Your task to perform on an android device: make emails show in primary in the gmail app Image 0: 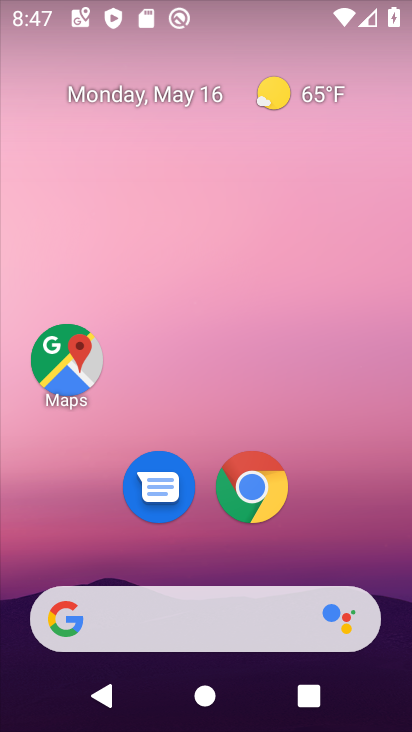
Step 0: drag from (363, 564) to (359, 167)
Your task to perform on an android device: make emails show in primary in the gmail app Image 1: 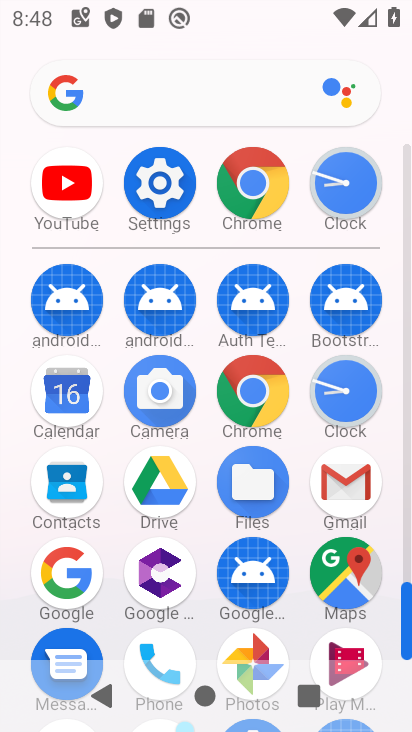
Step 1: click (367, 493)
Your task to perform on an android device: make emails show in primary in the gmail app Image 2: 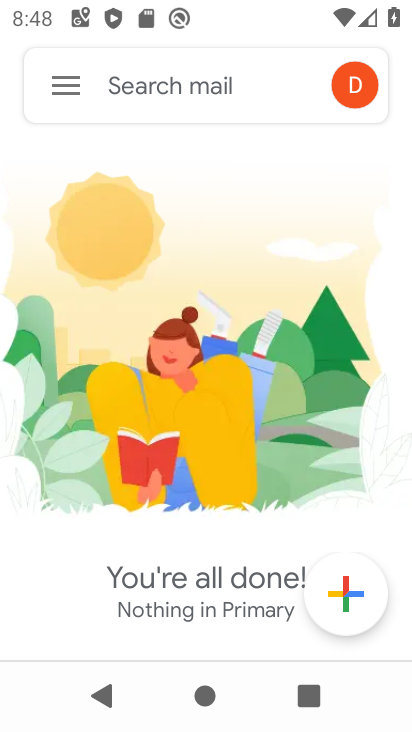
Step 2: click (69, 89)
Your task to perform on an android device: make emails show in primary in the gmail app Image 3: 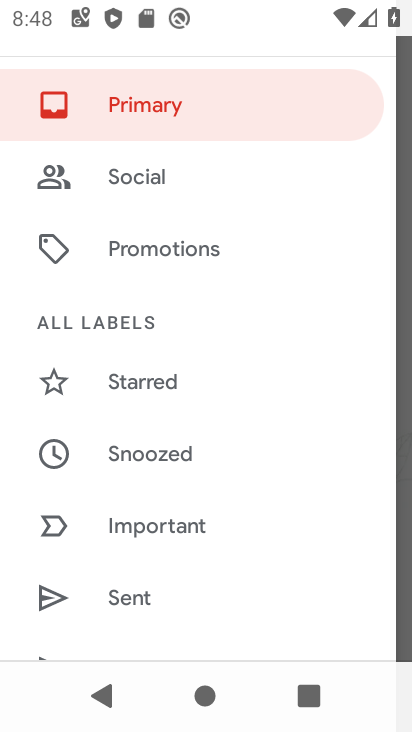
Step 3: drag from (298, 578) to (293, 382)
Your task to perform on an android device: make emails show in primary in the gmail app Image 4: 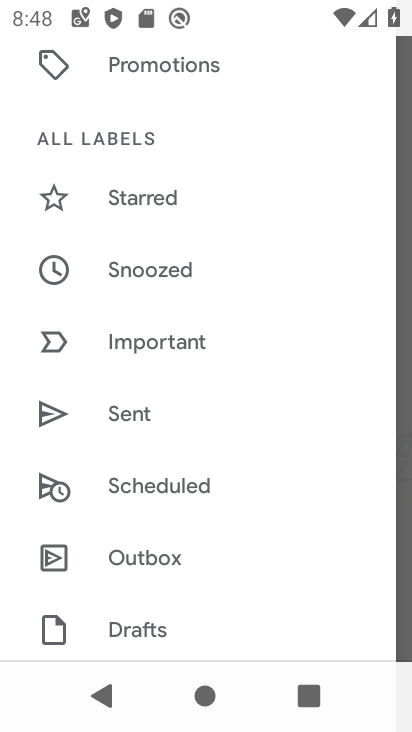
Step 4: drag from (317, 552) to (288, 409)
Your task to perform on an android device: make emails show in primary in the gmail app Image 5: 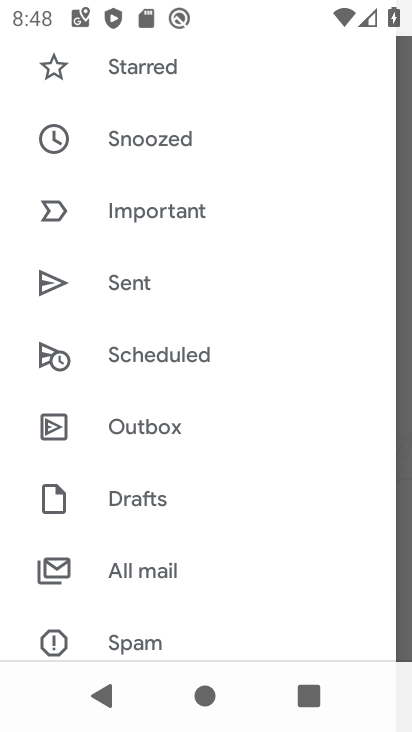
Step 5: drag from (303, 576) to (284, 401)
Your task to perform on an android device: make emails show in primary in the gmail app Image 6: 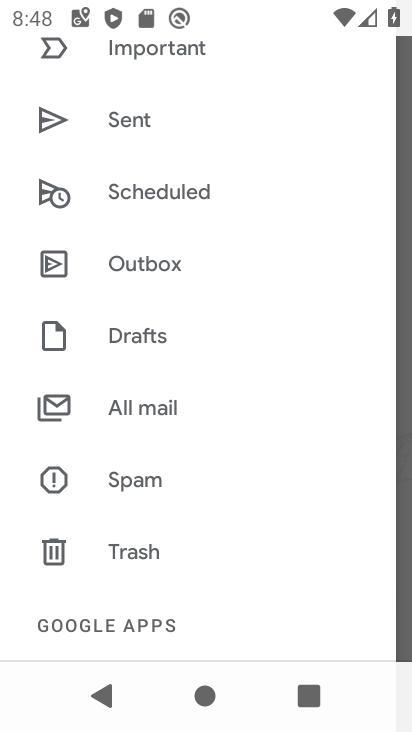
Step 6: drag from (280, 581) to (262, 383)
Your task to perform on an android device: make emails show in primary in the gmail app Image 7: 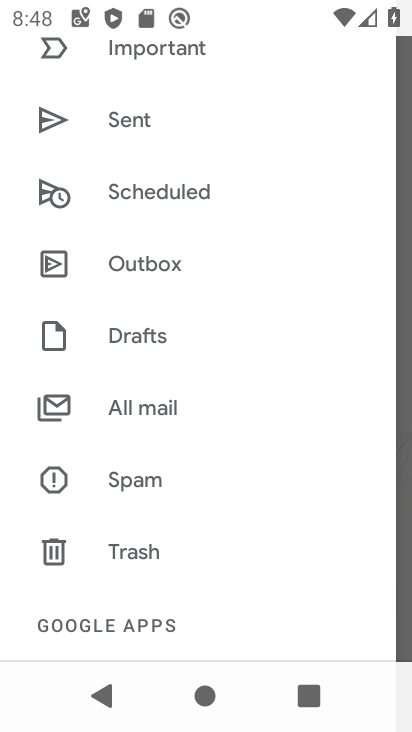
Step 7: drag from (268, 604) to (274, 352)
Your task to perform on an android device: make emails show in primary in the gmail app Image 8: 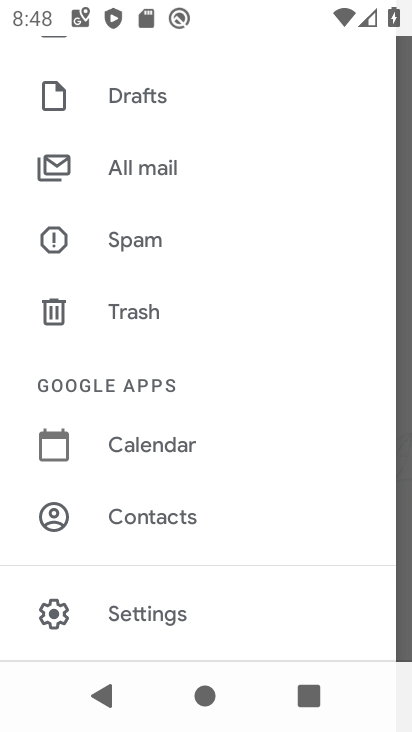
Step 8: drag from (273, 569) to (282, 414)
Your task to perform on an android device: make emails show in primary in the gmail app Image 9: 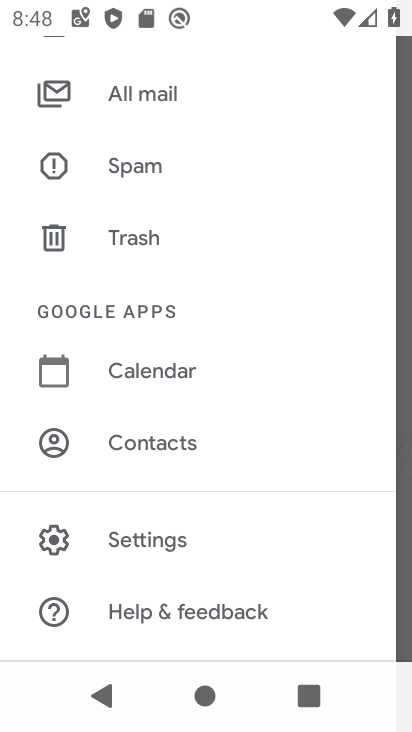
Step 9: click (152, 544)
Your task to perform on an android device: make emails show in primary in the gmail app Image 10: 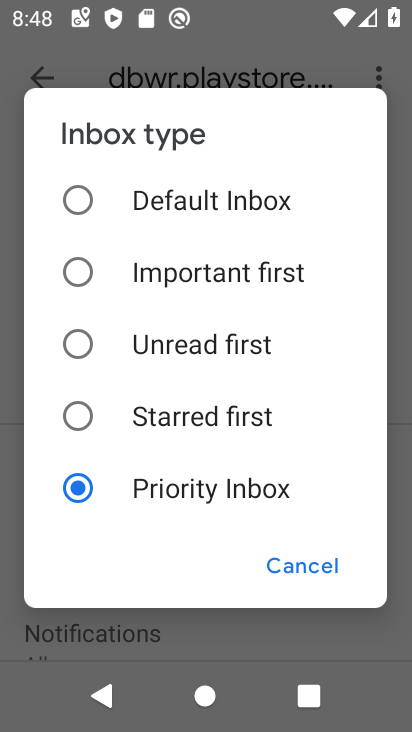
Step 10: click (80, 193)
Your task to perform on an android device: make emails show in primary in the gmail app Image 11: 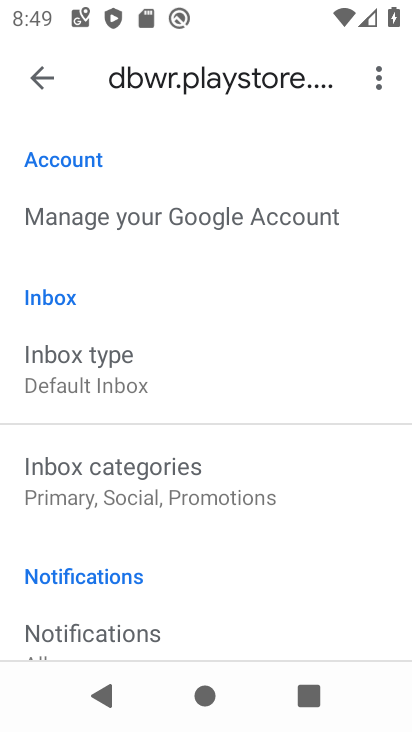
Step 11: click (248, 489)
Your task to perform on an android device: make emails show in primary in the gmail app Image 12: 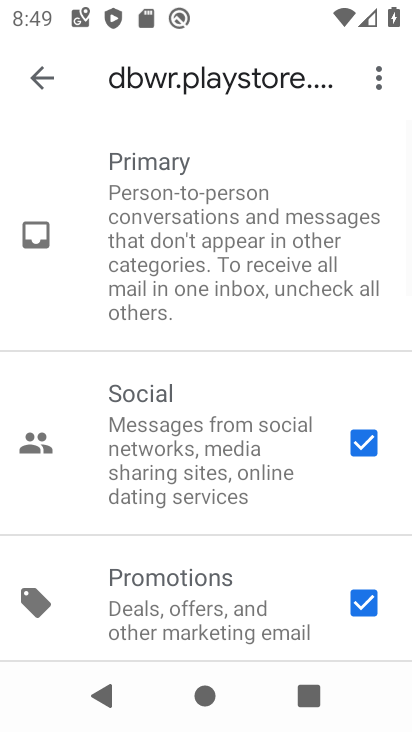
Step 12: click (351, 448)
Your task to perform on an android device: make emails show in primary in the gmail app Image 13: 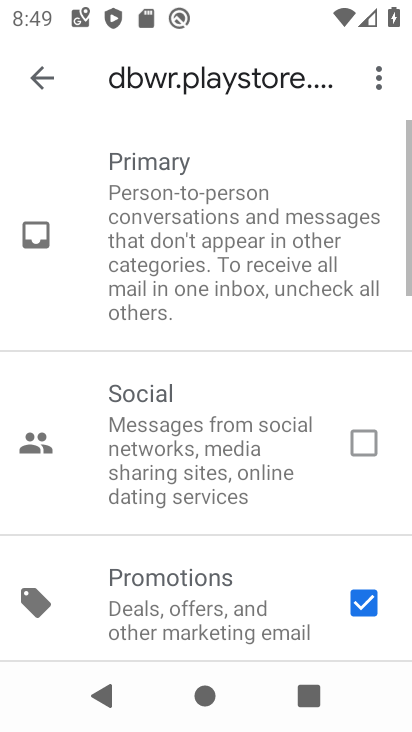
Step 13: click (361, 602)
Your task to perform on an android device: make emails show in primary in the gmail app Image 14: 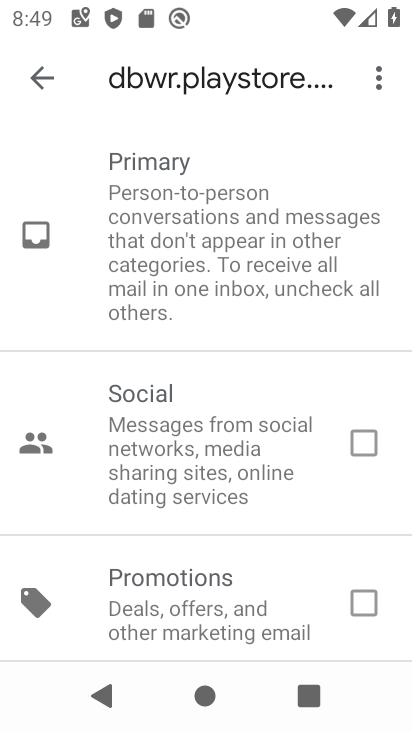
Step 14: task complete